Your task to perform on an android device: Go to network settings Image 0: 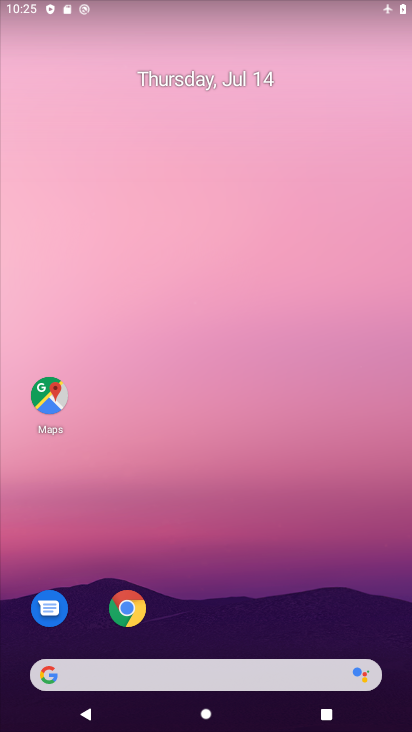
Step 0: drag from (264, 641) to (237, 92)
Your task to perform on an android device: Go to network settings Image 1: 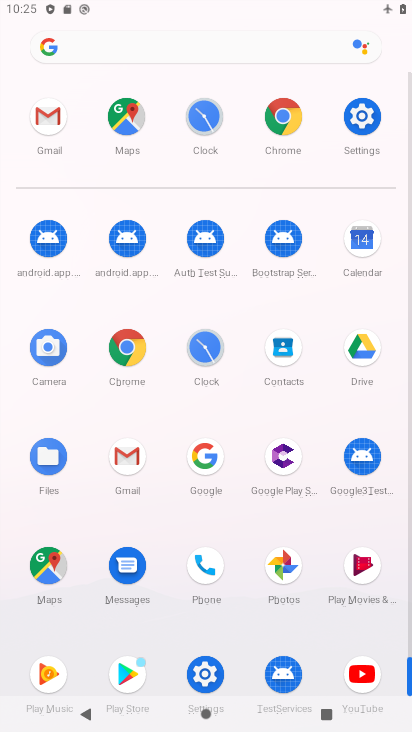
Step 1: click (210, 661)
Your task to perform on an android device: Go to network settings Image 2: 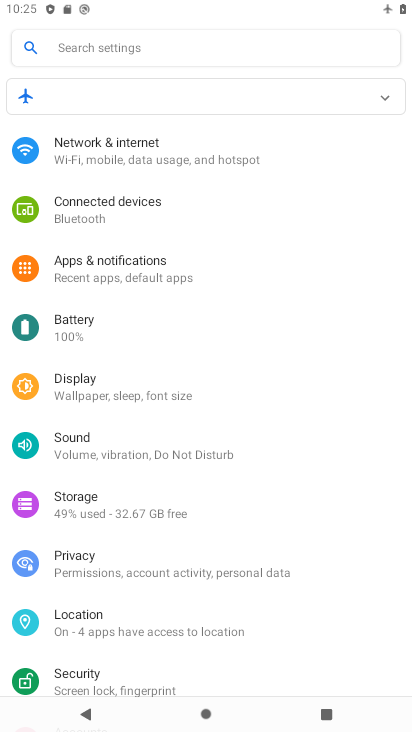
Step 2: click (120, 158)
Your task to perform on an android device: Go to network settings Image 3: 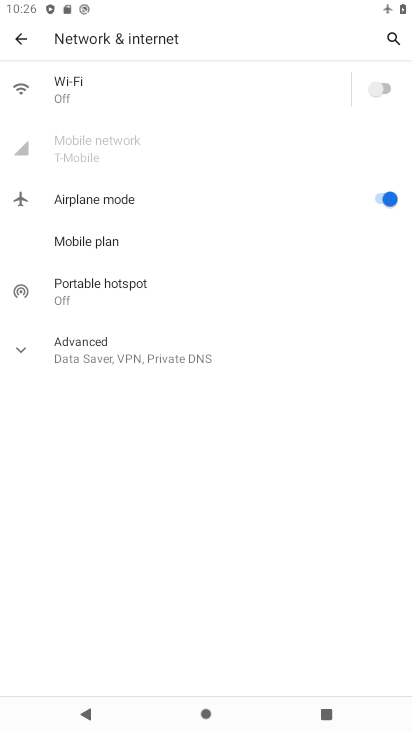
Step 3: task complete